Your task to perform on an android device: open app "WhatsApp Messenger" Image 0: 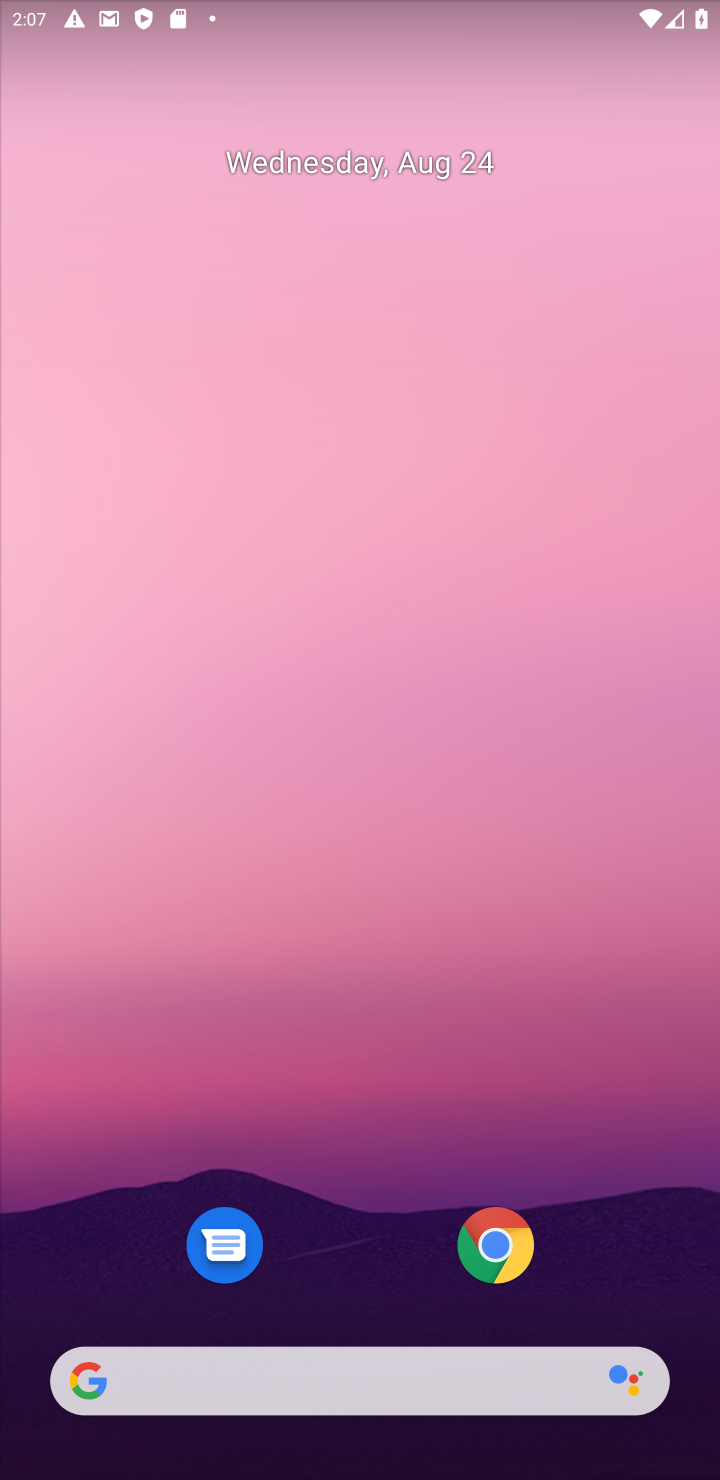
Step 0: drag from (379, 1305) to (533, 307)
Your task to perform on an android device: open app "WhatsApp Messenger" Image 1: 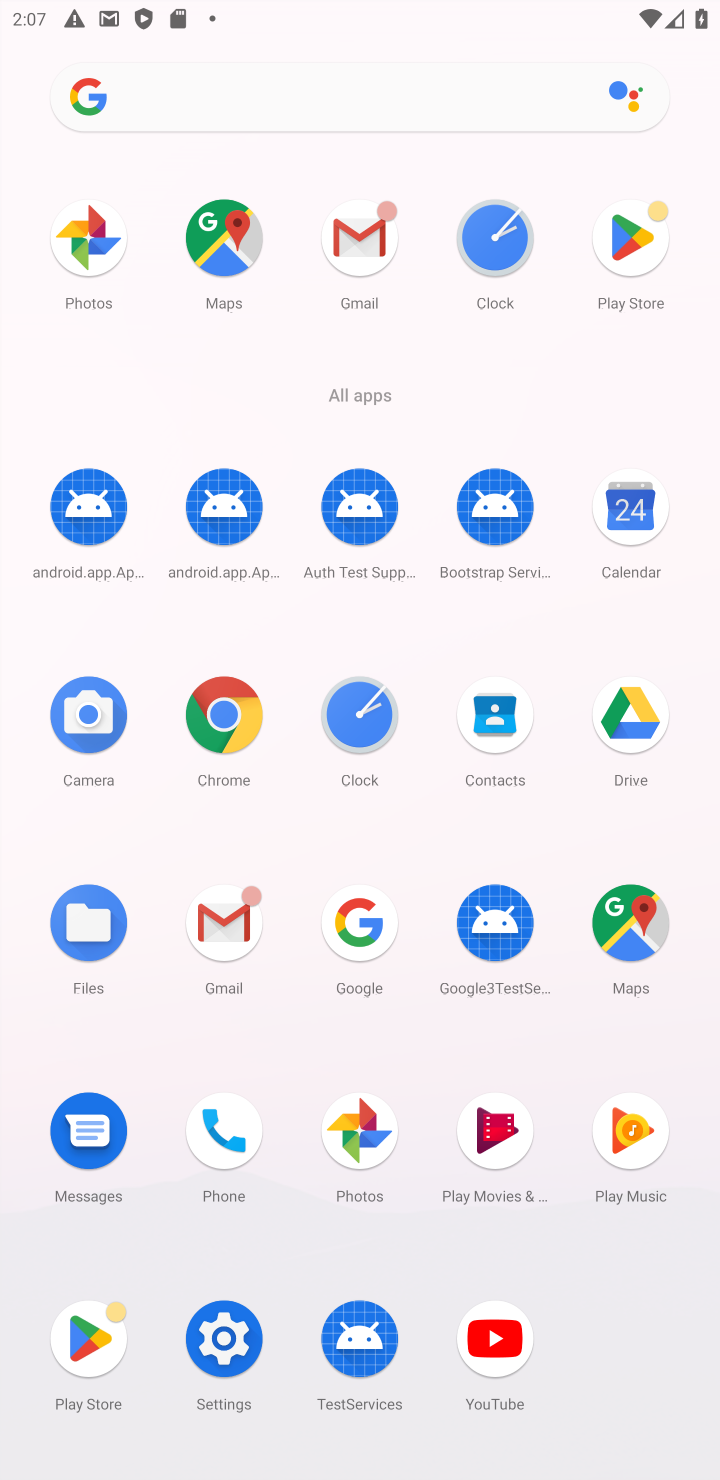
Step 1: drag from (85, 1333) to (433, 627)
Your task to perform on an android device: open app "WhatsApp Messenger" Image 2: 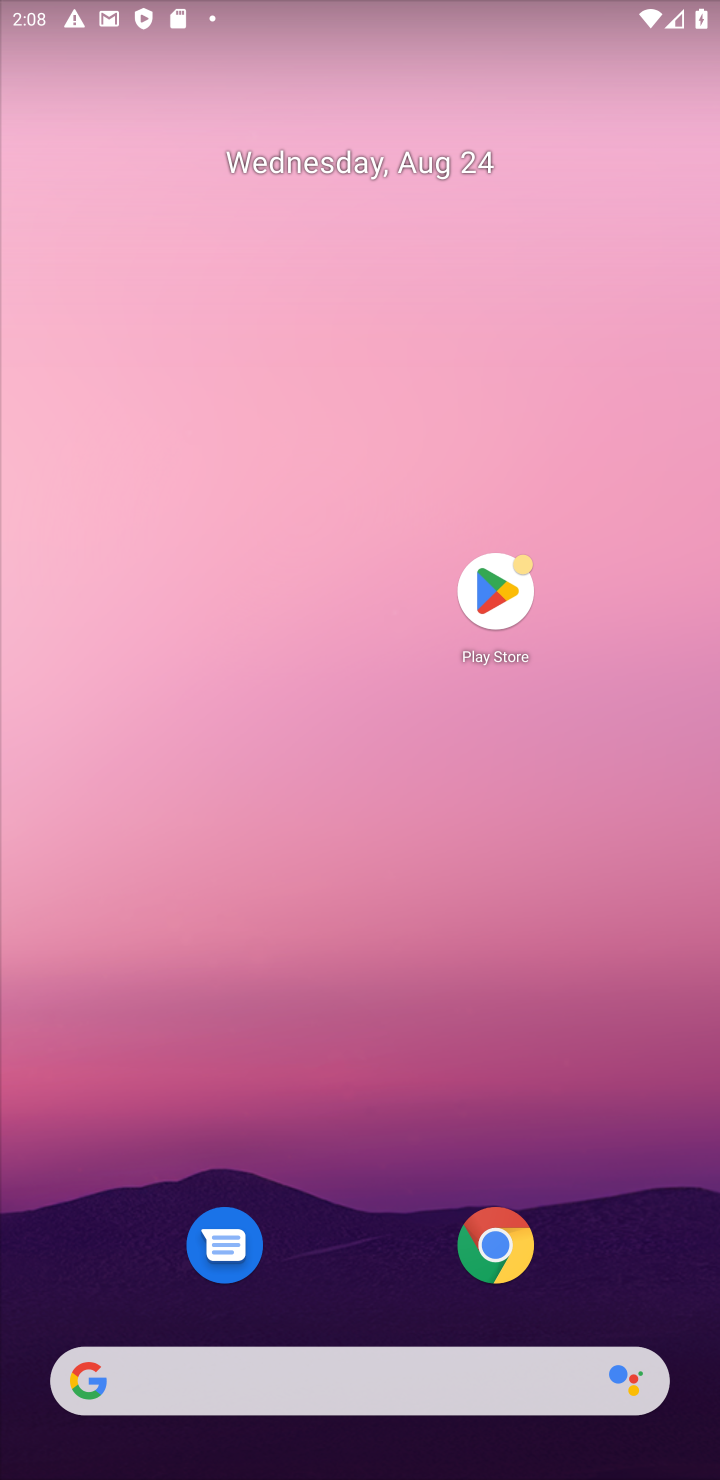
Step 2: click (496, 589)
Your task to perform on an android device: open app "WhatsApp Messenger" Image 3: 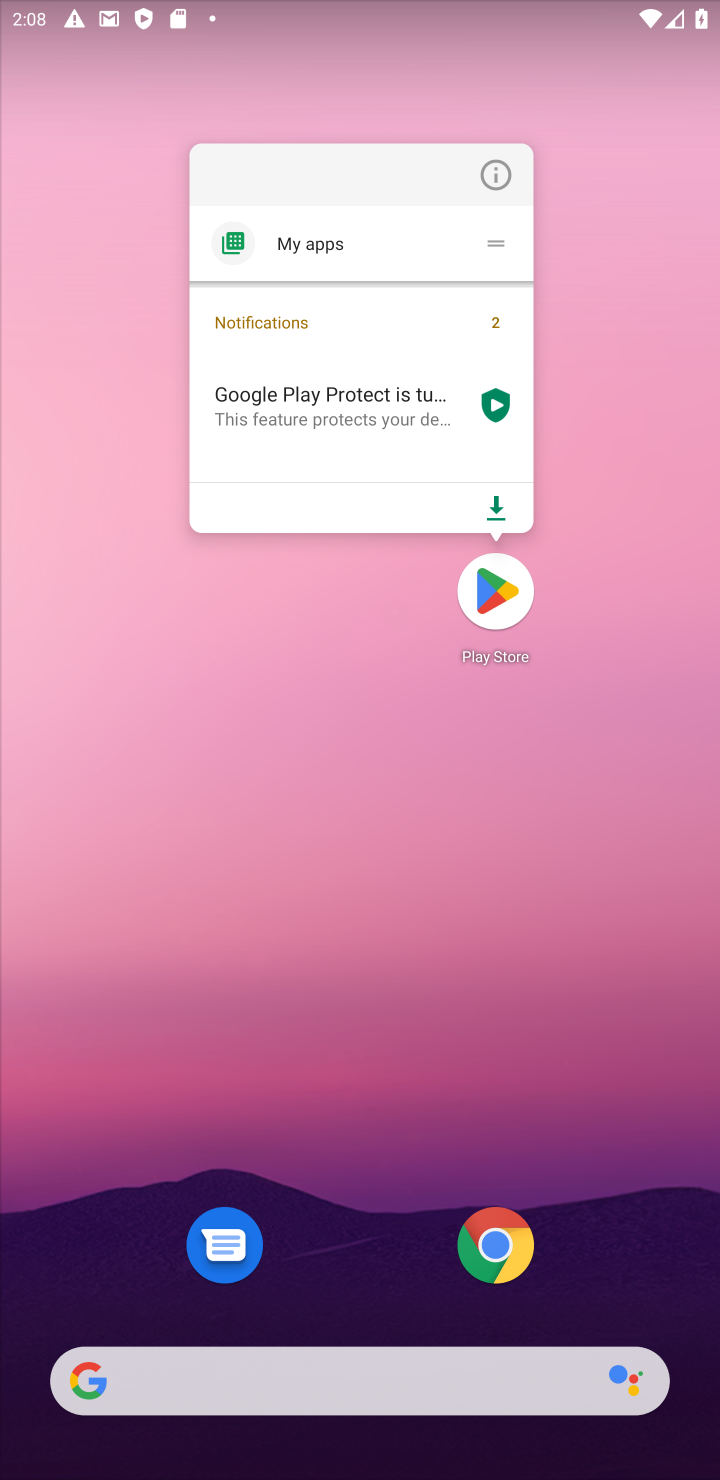
Step 3: click (496, 591)
Your task to perform on an android device: open app "WhatsApp Messenger" Image 4: 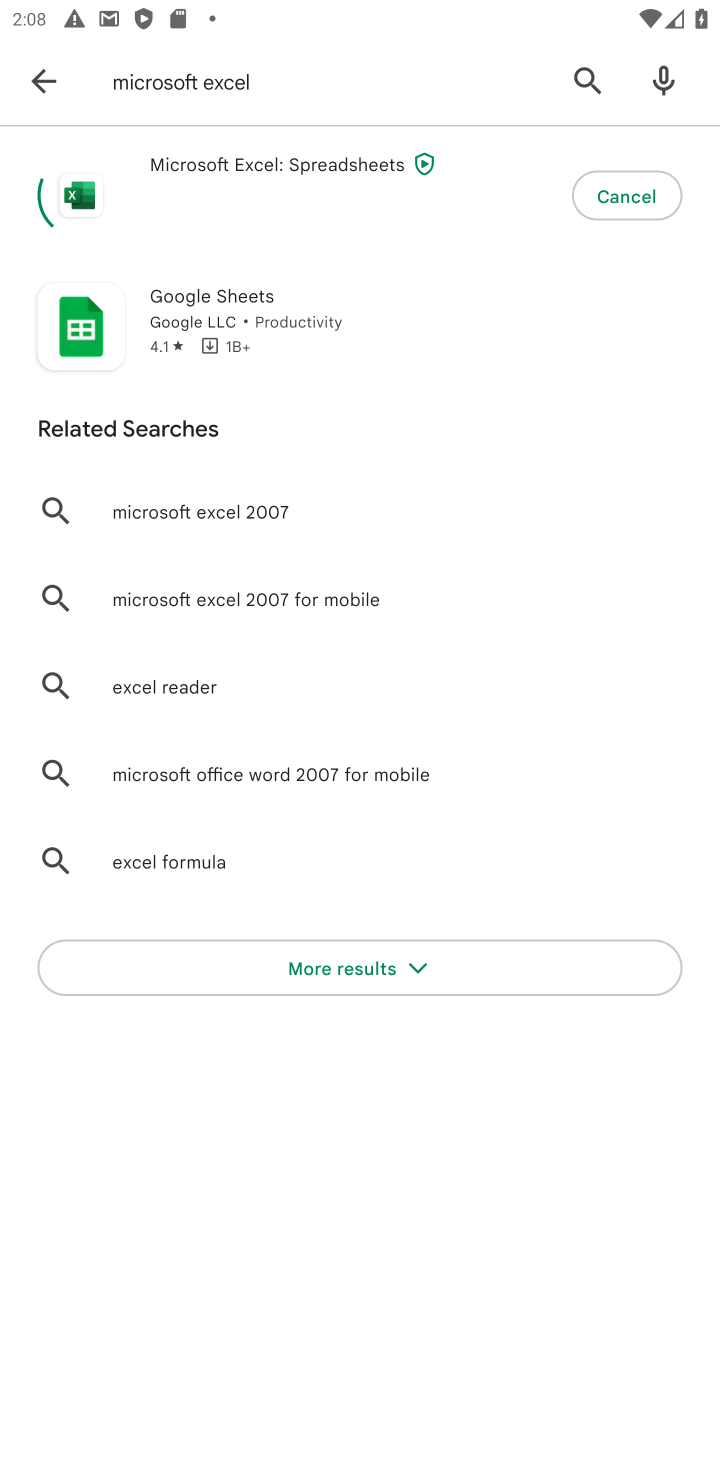
Step 4: click (579, 67)
Your task to perform on an android device: open app "WhatsApp Messenger" Image 5: 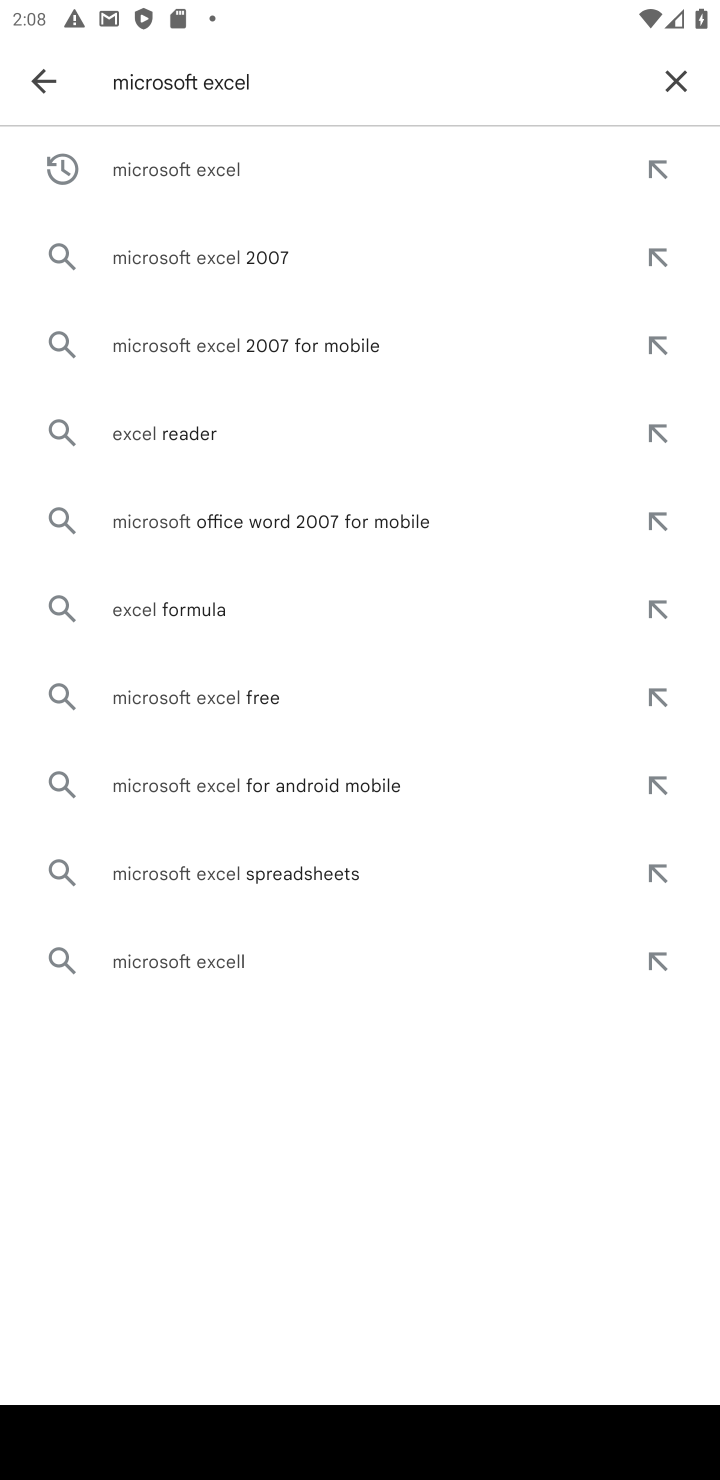
Step 5: click (666, 65)
Your task to perform on an android device: open app "WhatsApp Messenger" Image 6: 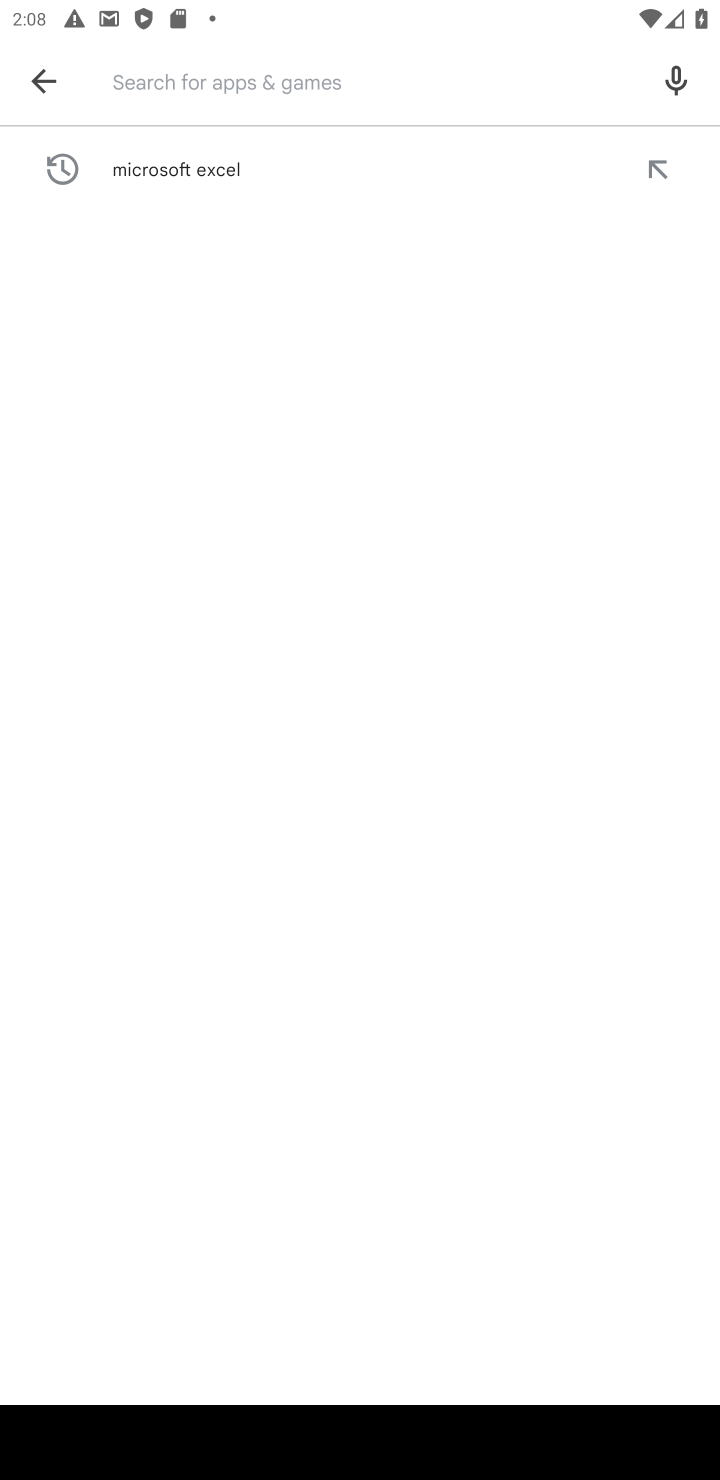
Step 6: type "WhatsApp Messenger"
Your task to perform on an android device: open app "WhatsApp Messenger" Image 7: 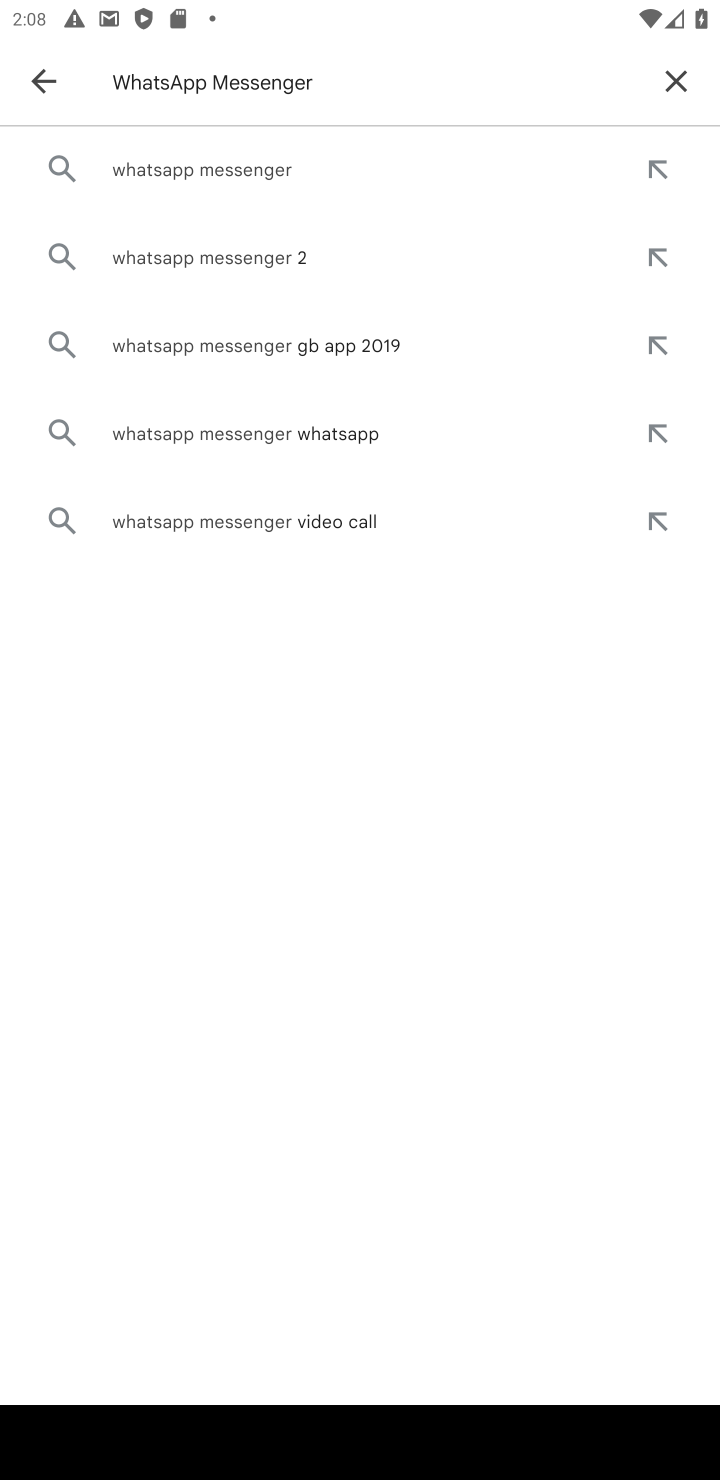
Step 7: click (237, 159)
Your task to perform on an android device: open app "WhatsApp Messenger" Image 8: 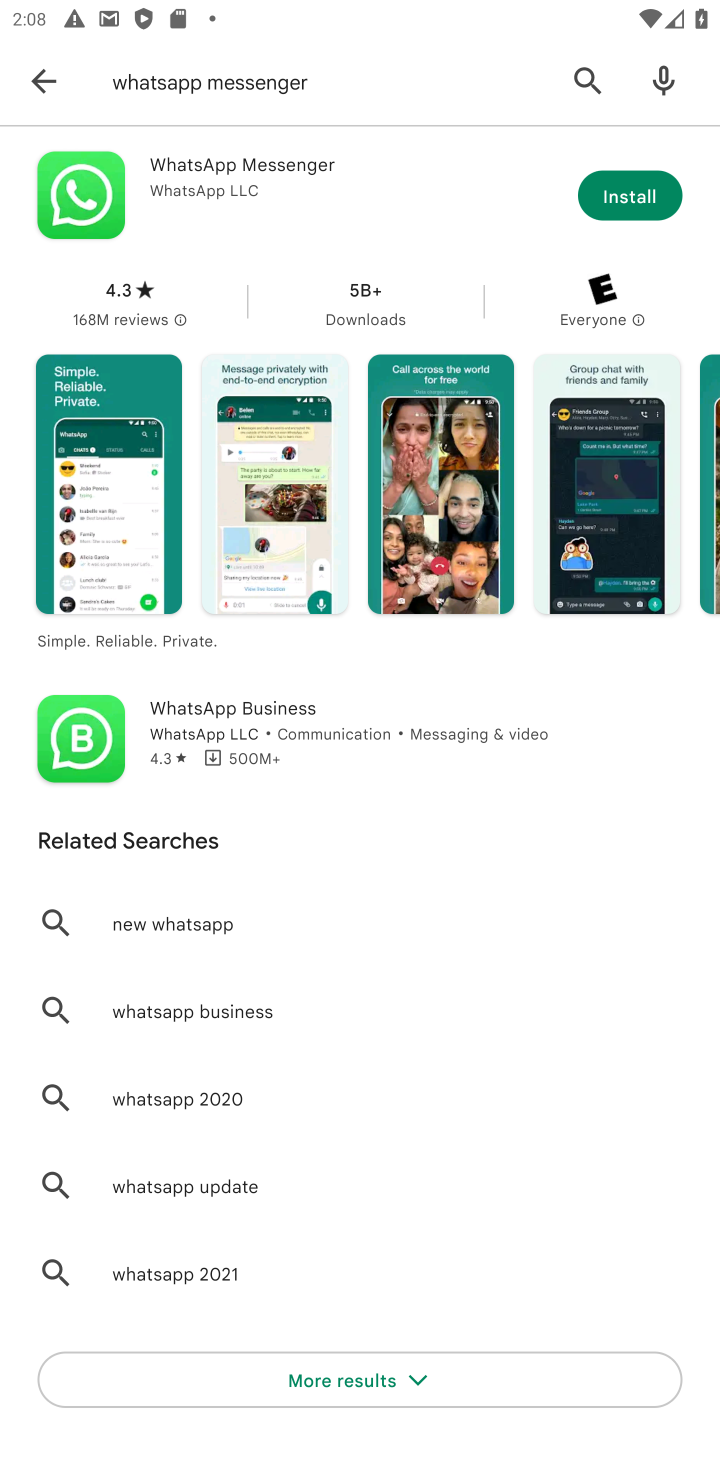
Step 8: task complete